Your task to perform on an android device: open app "Messenger Lite" Image 0: 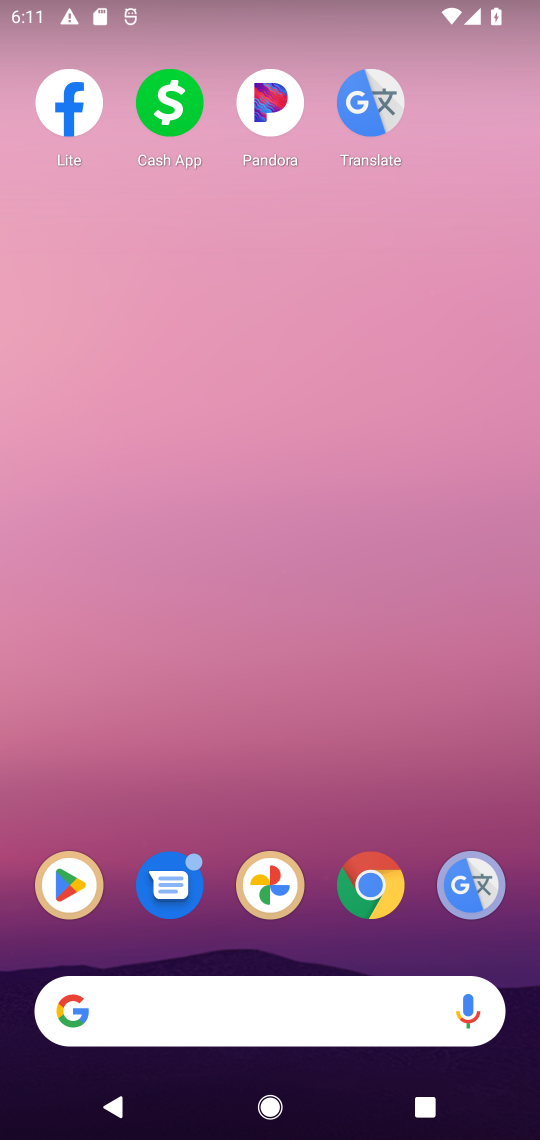
Step 0: drag from (417, 701) to (434, 170)
Your task to perform on an android device: open app "Messenger Lite" Image 1: 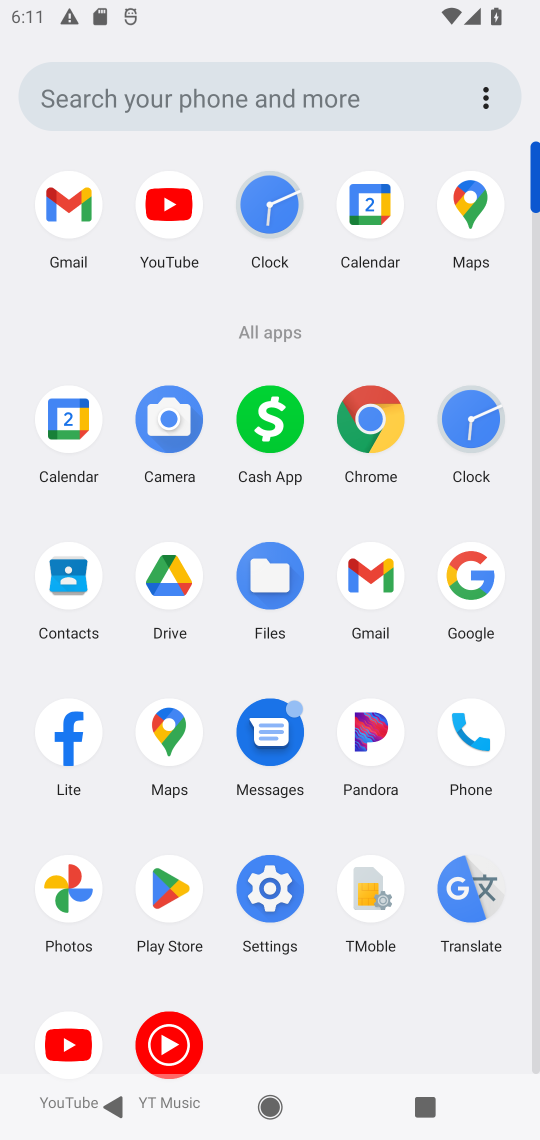
Step 1: click (161, 895)
Your task to perform on an android device: open app "Messenger Lite" Image 2: 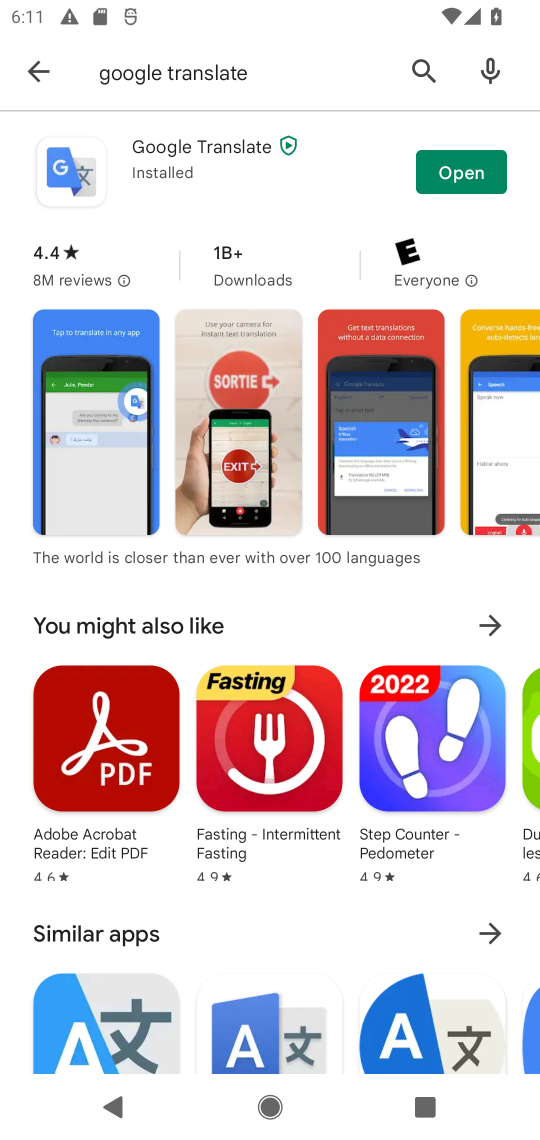
Step 2: click (418, 68)
Your task to perform on an android device: open app "Messenger Lite" Image 3: 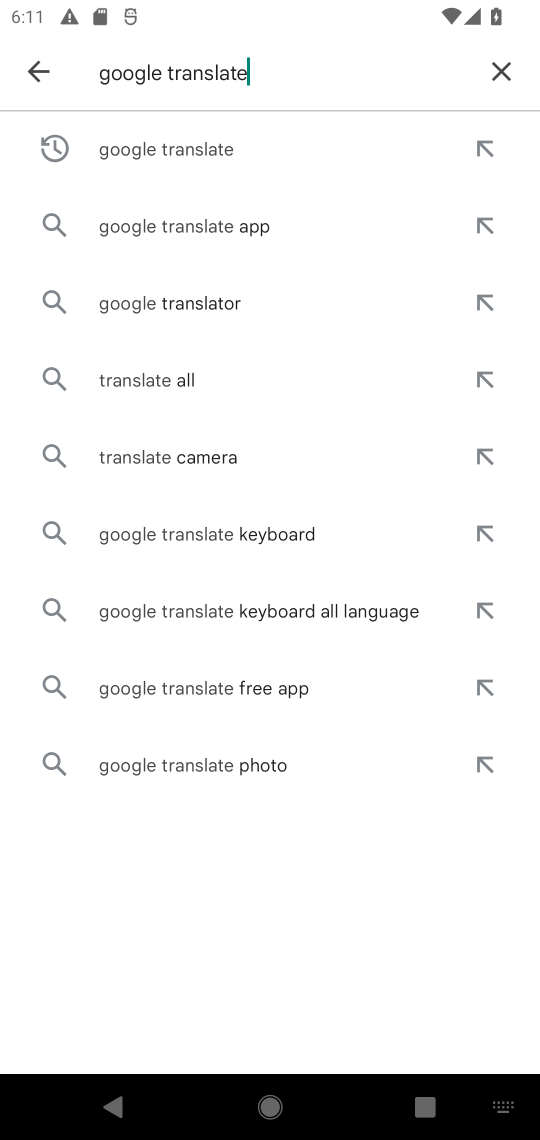
Step 3: click (499, 73)
Your task to perform on an android device: open app "Messenger Lite" Image 4: 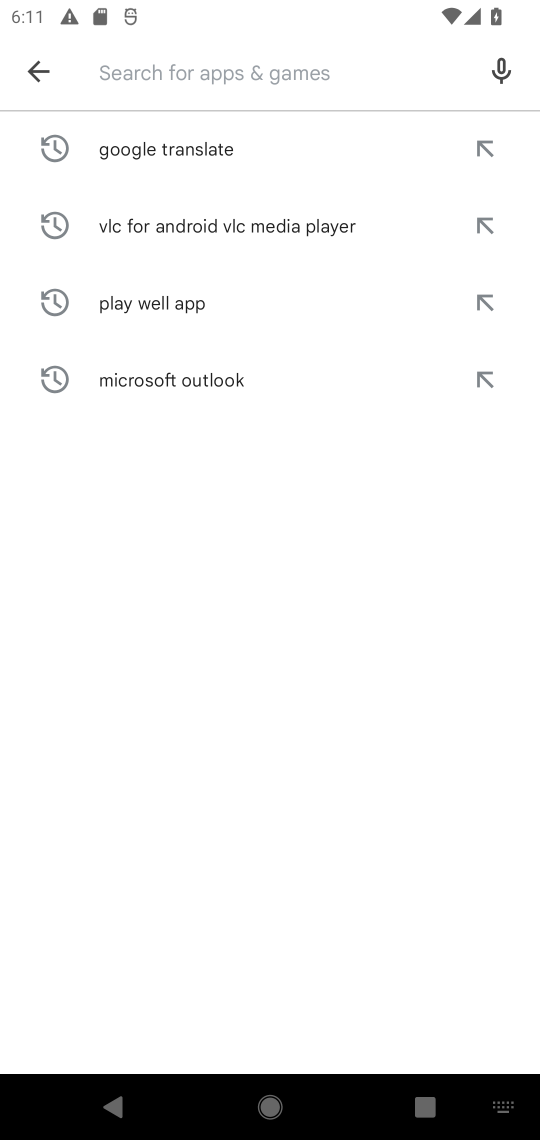
Step 4: type "messenger lite "
Your task to perform on an android device: open app "Messenger Lite" Image 5: 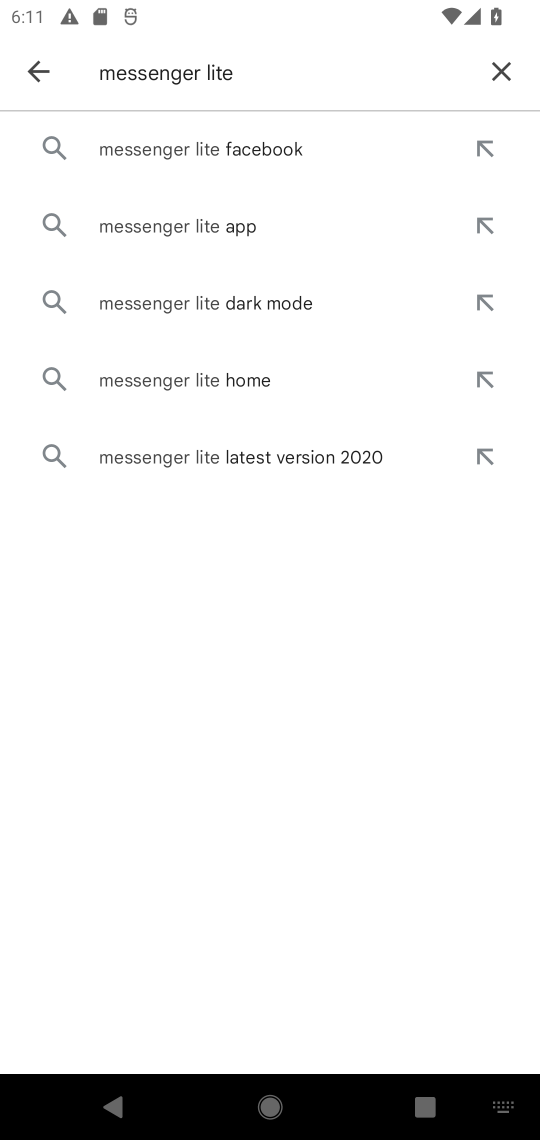
Step 5: click (242, 223)
Your task to perform on an android device: open app "Messenger Lite" Image 6: 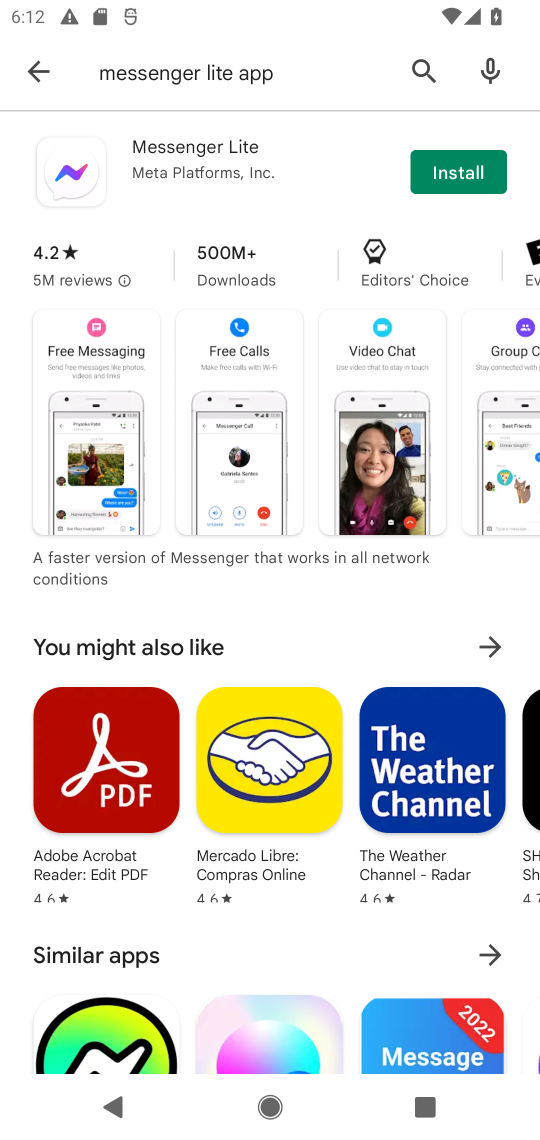
Step 6: task complete